Your task to perform on an android device: Show me popular videos on Youtube Image 0: 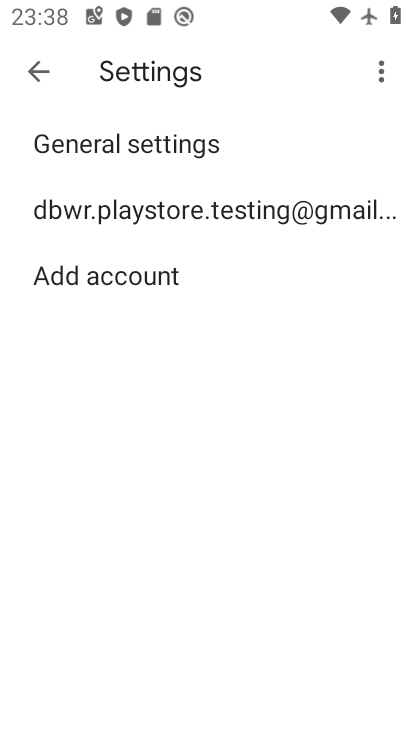
Step 0: press home button
Your task to perform on an android device: Show me popular videos on Youtube Image 1: 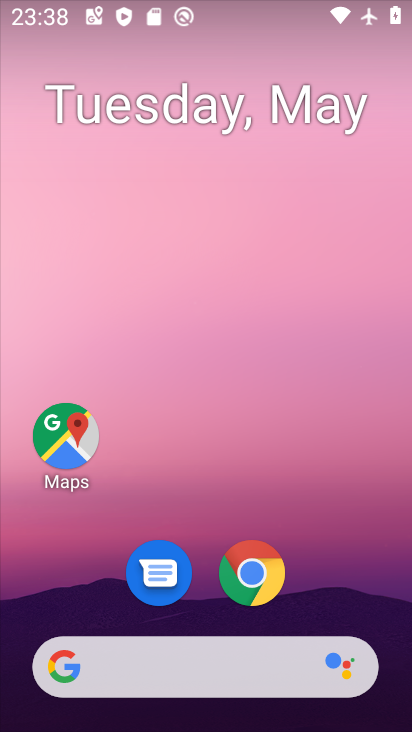
Step 1: drag from (332, 539) to (278, 226)
Your task to perform on an android device: Show me popular videos on Youtube Image 2: 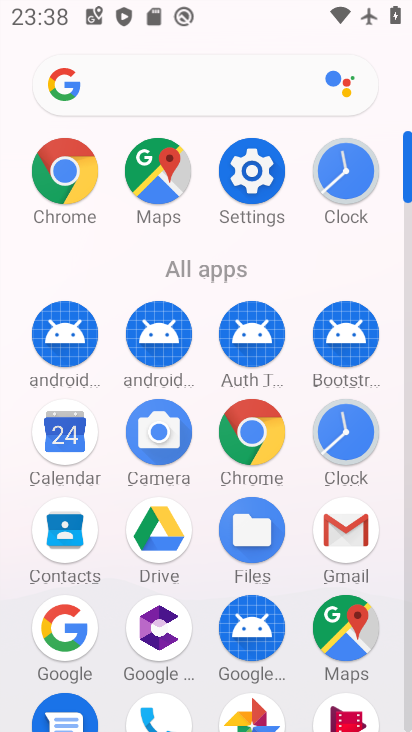
Step 2: drag from (280, 575) to (289, 239)
Your task to perform on an android device: Show me popular videos on Youtube Image 3: 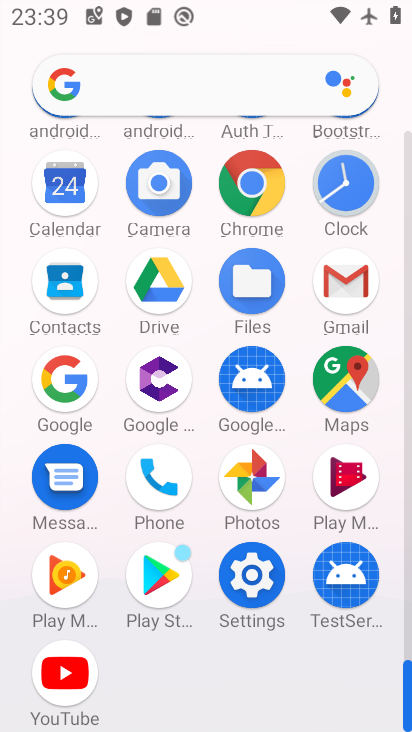
Step 3: click (55, 678)
Your task to perform on an android device: Show me popular videos on Youtube Image 4: 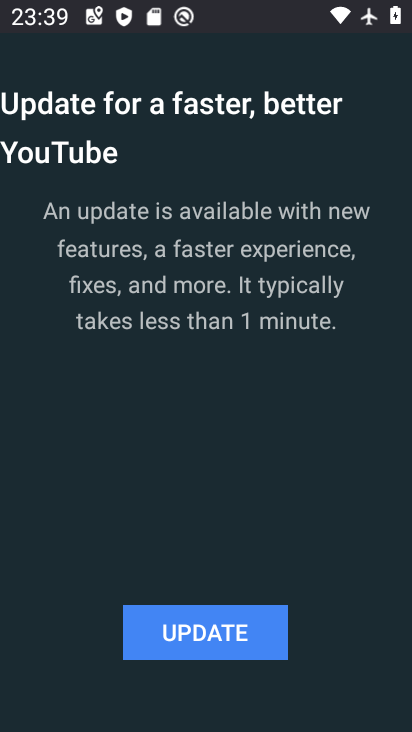
Step 4: task complete